Your task to perform on an android device: visit the assistant section in the google photos Image 0: 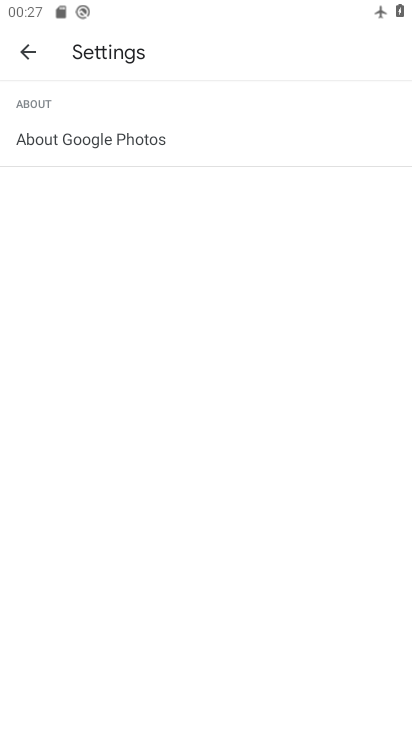
Step 0: press home button
Your task to perform on an android device: visit the assistant section in the google photos Image 1: 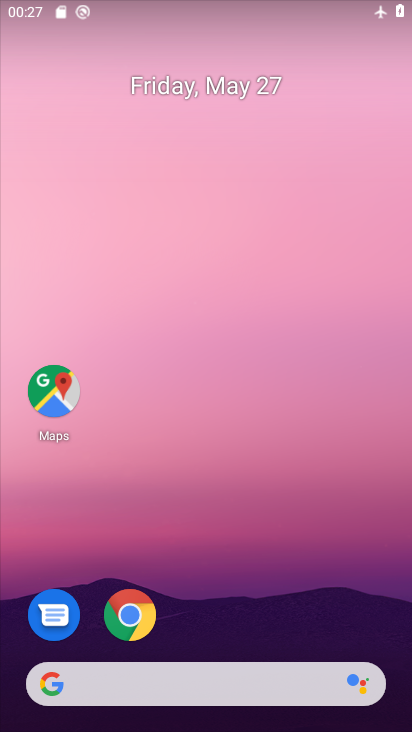
Step 1: drag from (358, 612) to (372, 302)
Your task to perform on an android device: visit the assistant section in the google photos Image 2: 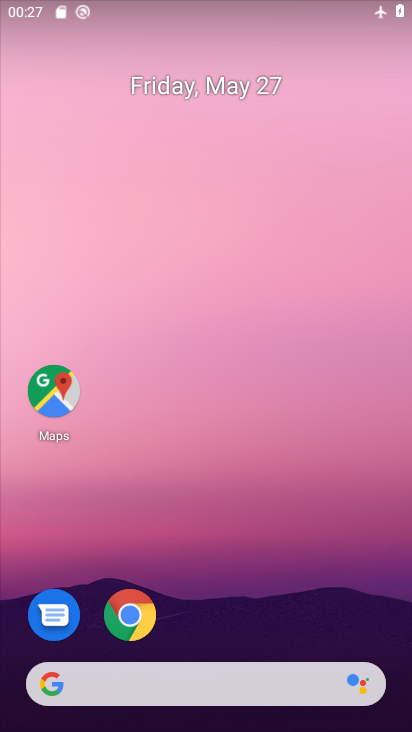
Step 2: drag from (359, 560) to (349, 255)
Your task to perform on an android device: visit the assistant section in the google photos Image 3: 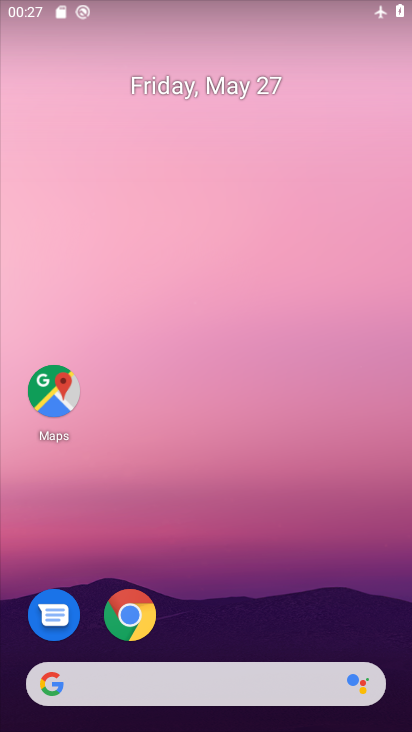
Step 3: drag from (337, 586) to (345, 225)
Your task to perform on an android device: visit the assistant section in the google photos Image 4: 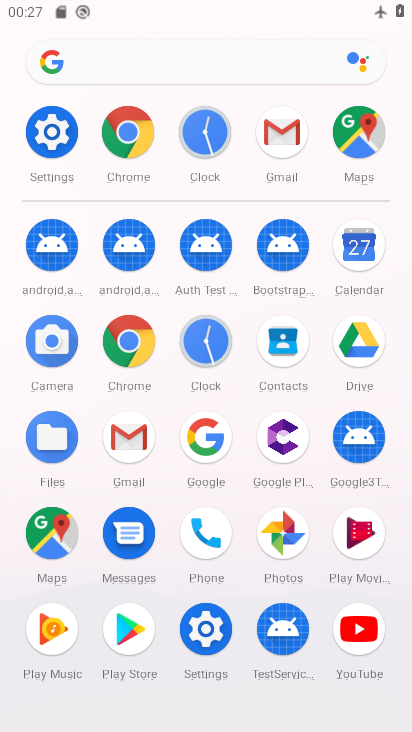
Step 4: click (294, 539)
Your task to perform on an android device: visit the assistant section in the google photos Image 5: 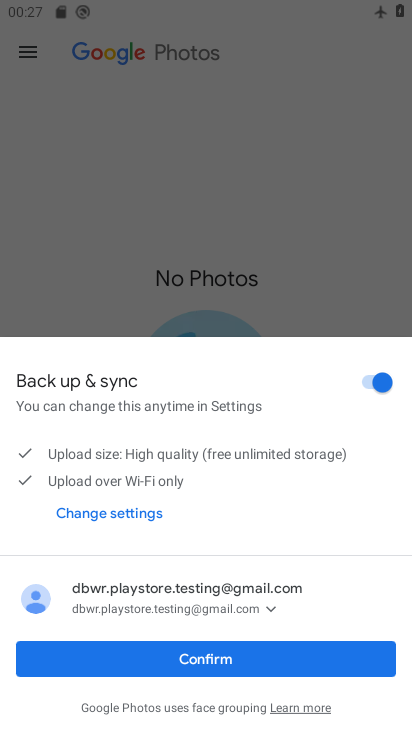
Step 5: click (258, 660)
Your task to perform on an android device: visit the assistant section in the google photos Image 6: 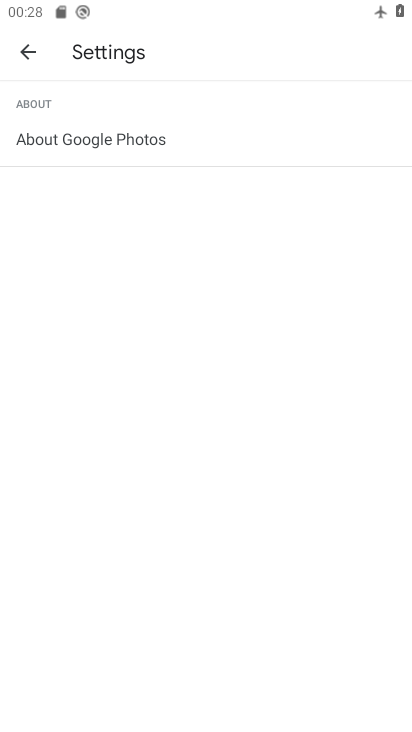
Step 6: click (27, 54)
Your task to perform on an android device: visit the assistant section in the google photos Image 7: 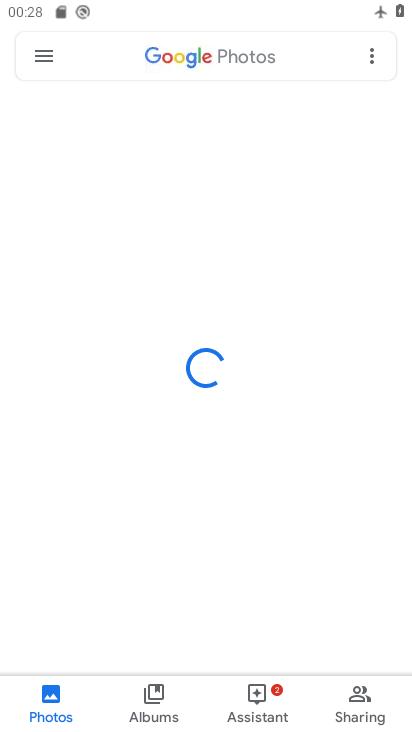
Step 7: click (264, 705)
Your task to perform on an android device: visit the assistant section in the google photos Image 8: 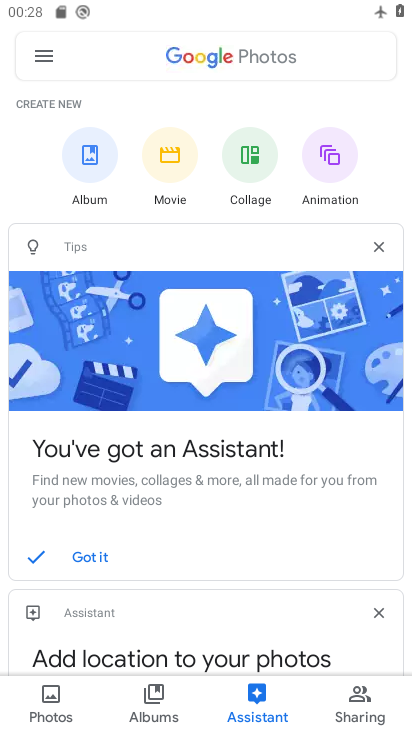
Step 8: task complete